Your task to perform on an android device: turn off javascript in the chrome app Image 0: 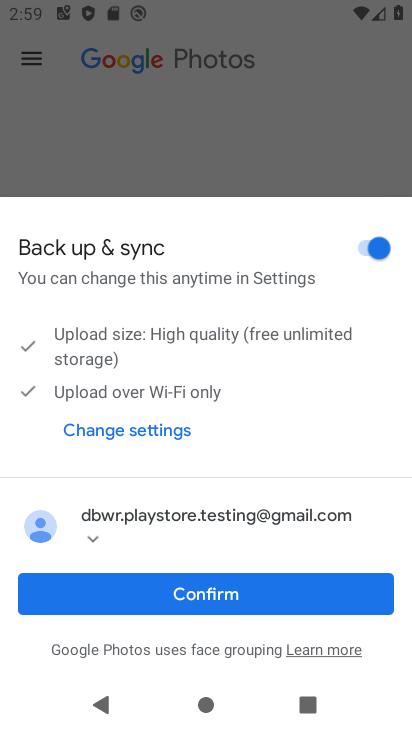
Step 0: press home button
Your task to perform on an android device: turn off javascript in the chrome app Image 1: 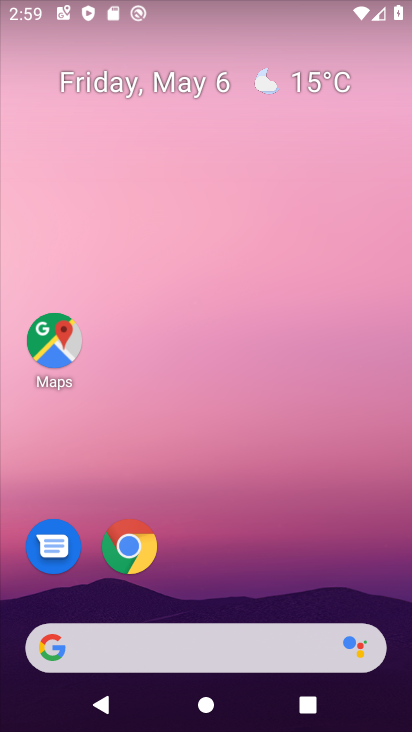
Step 1: click (122, 539)
Your task to perform on an android device: turn off javascript in the chrome app Image 2: 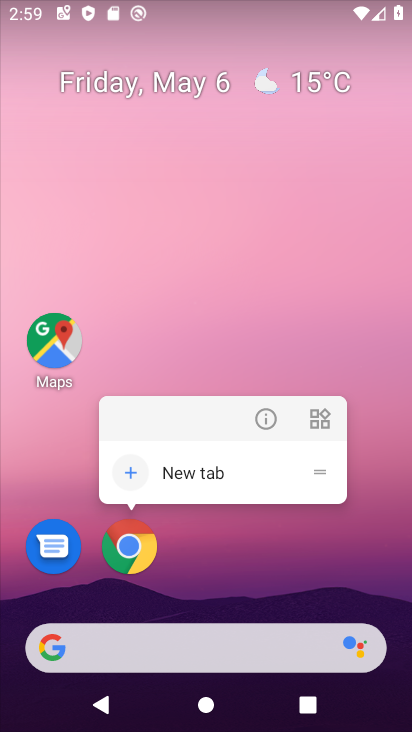
Step 2: click (132, 542)
Your task to perform on an android device: turn off javascript in the chrome app Image 3: 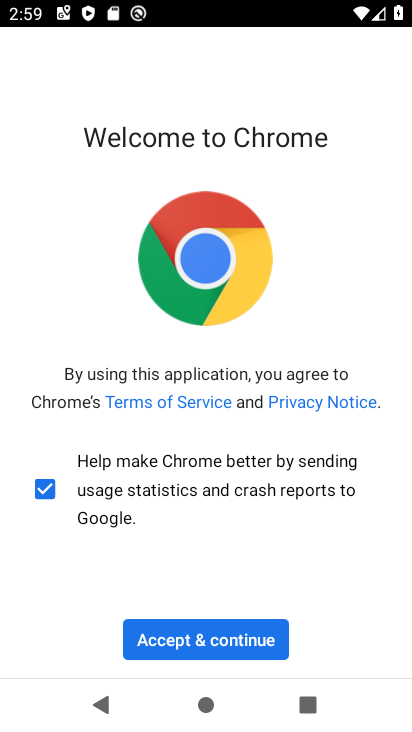
Step 3: click (198, 639)
Your task to perform on an android device: turn off javascript in the chrome app Image 4: 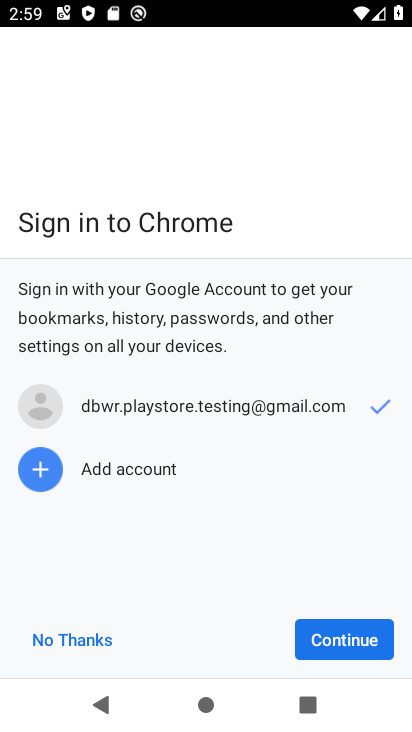
Step 4: click (322, 646)
Your task to perform on an android device: turn off javascript in the chrome app Image 5: 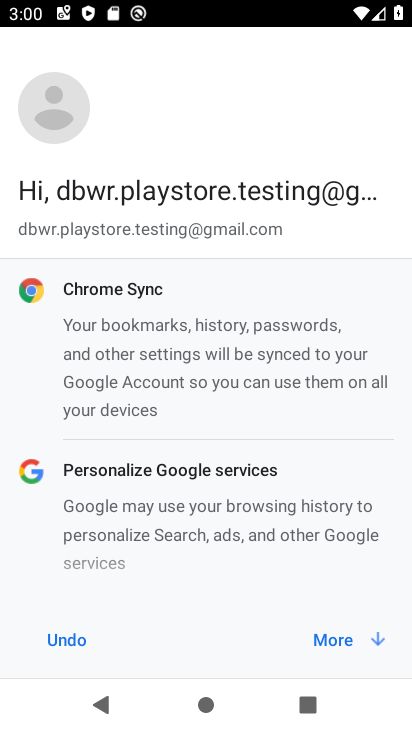
Step 5: click (327, 630)
Your task to perform on an android device: turn off javascript in the chrome app Image 6: 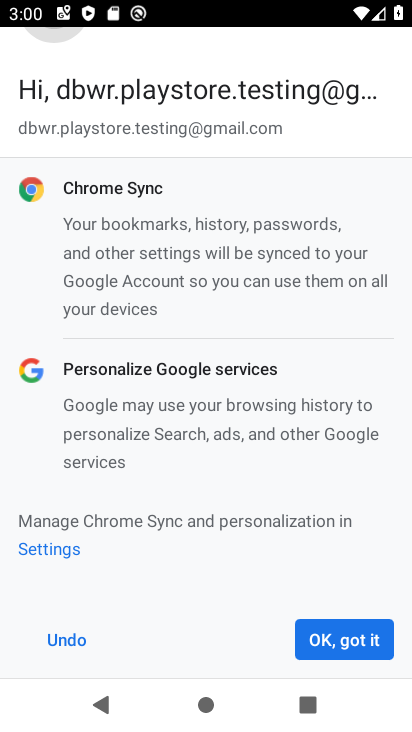
Step 6: click (330, 633)
Your task to perform on an android device: turn off javascript in the chrome app Image 7: 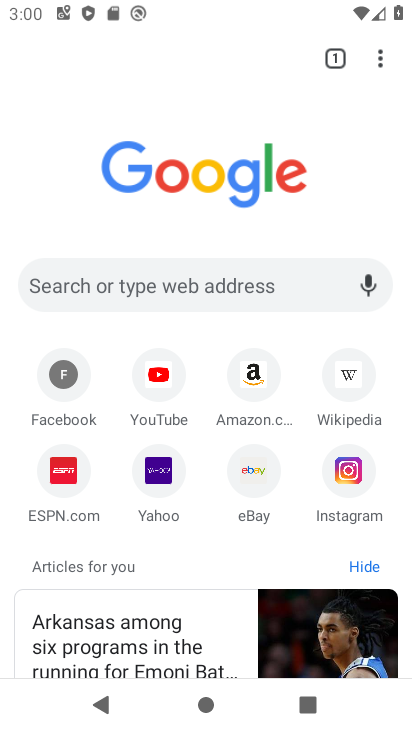
Step 7: click (382, 57)
Your task to perform on an android device: turn off javascript in the chrome app Image 8: 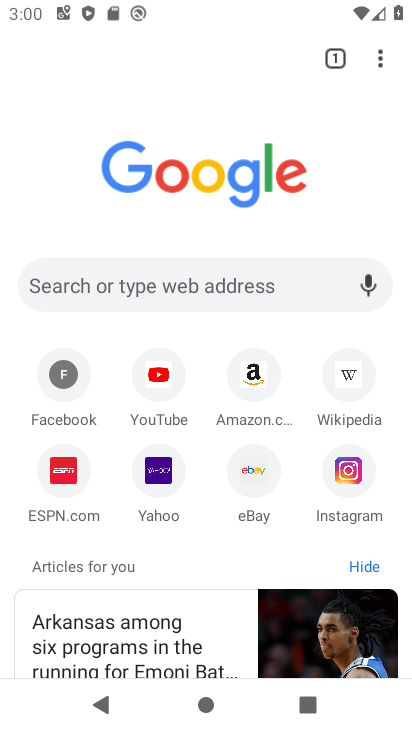
Step 8: click (376, 60)
Your task to perform on an android device: turn off javascript in the chrome app Image 9: 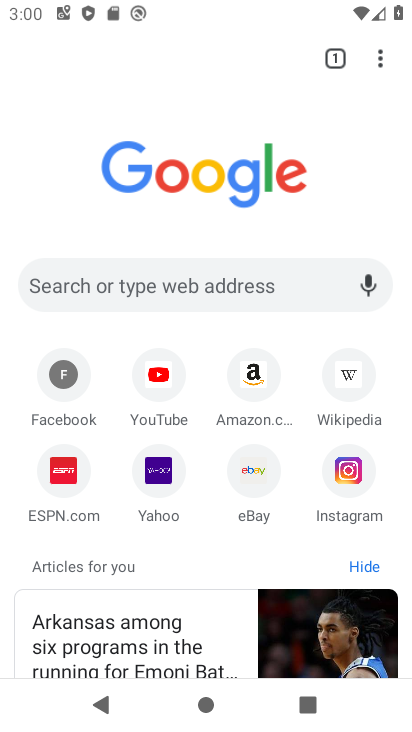
Step 9: click (376, 60)
Your task to perform on an android device: turn off javascript in the chrome app Image 10: 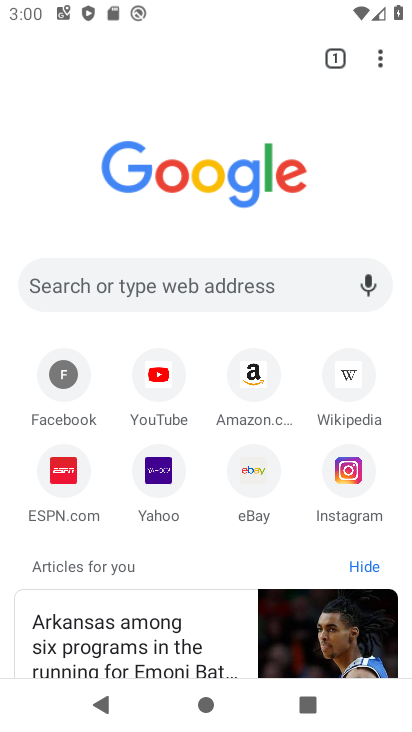
Step 10: click (382, 60)
Your task to perform on an android device: turn off javascript in the chrome app Image 11: 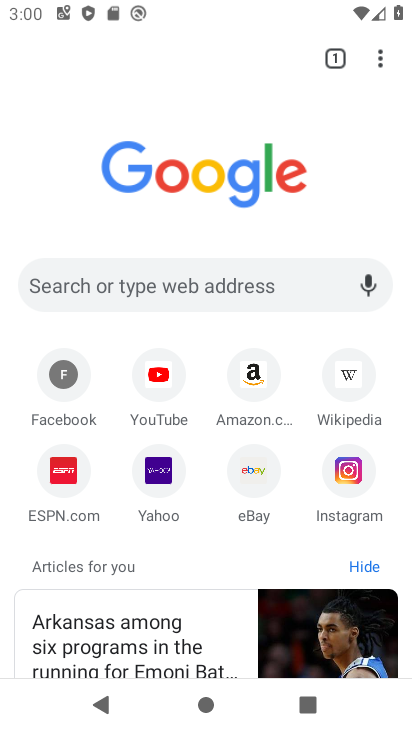
Step 11: click (381, 60)
Your task to perform on an android device: turn off javascript in the chrome app Image 12: 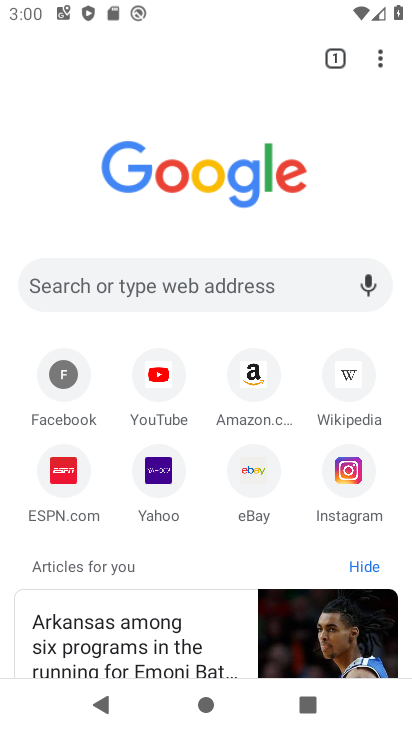
Step 12: click (381, 60)
Your task to perform on an android device: turn off javascript in the chrome app Image 13: 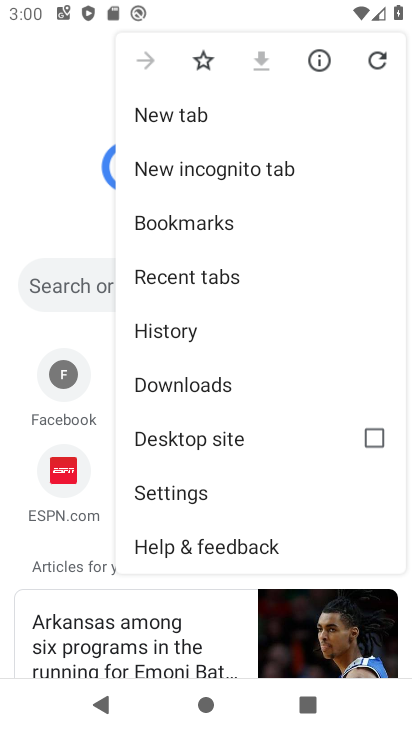
Step 13: drag from (251, 512) to (247, 164)
Your task to perform on an android device: turn off javascript in the chrome app Image 14: 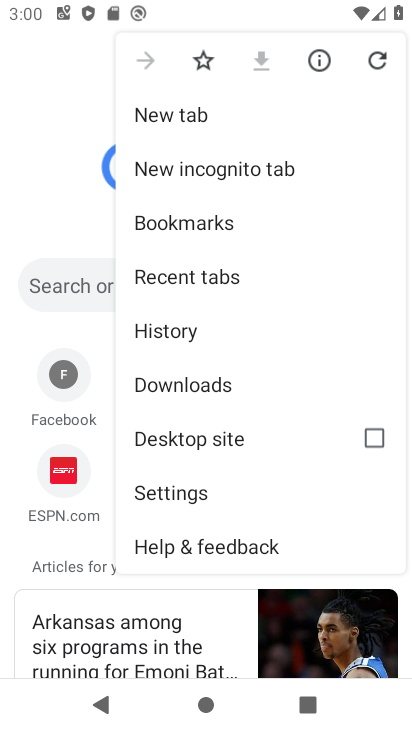
Step 14: click (158, 493)
Your task to perform on an android device: turn off javascript in the chrome app Image 15: 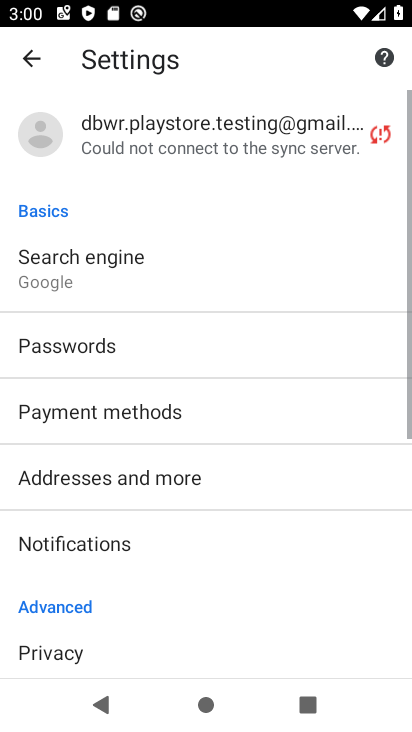
Step 15: drag from (137, 529) to (159, 206)
Your task to perform on an android device: turn off javascript in the chrome app Image 16: 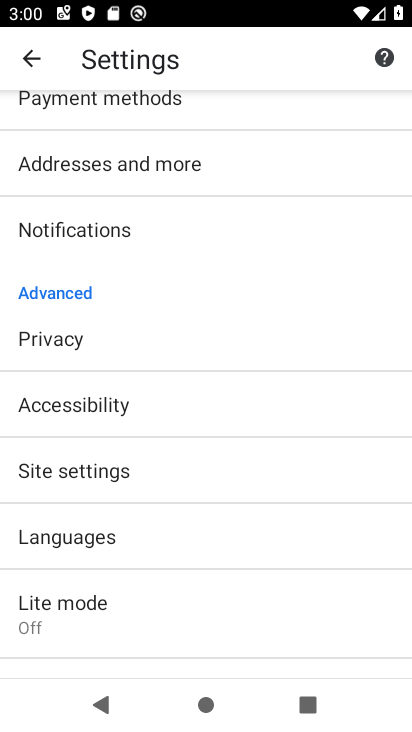
Step 16: drag from (134, 611) to (177, 306)
Your task to perform on an android device: turn off javascript in the chrome app Image 17: 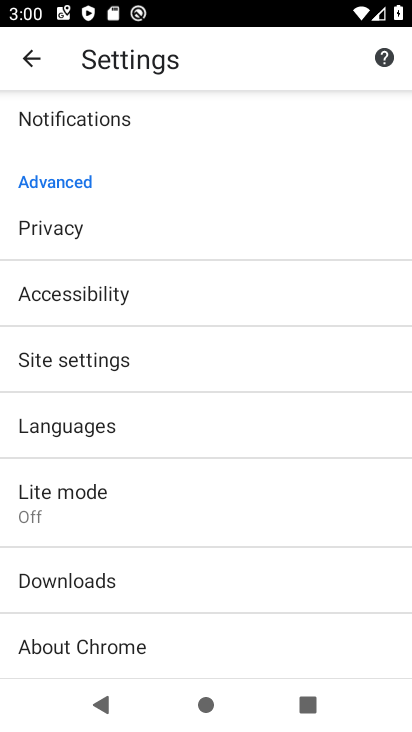
Step 17: click (68, 362)
Your task to perform on an android device: turn off javascript in the chrome app Image 18: 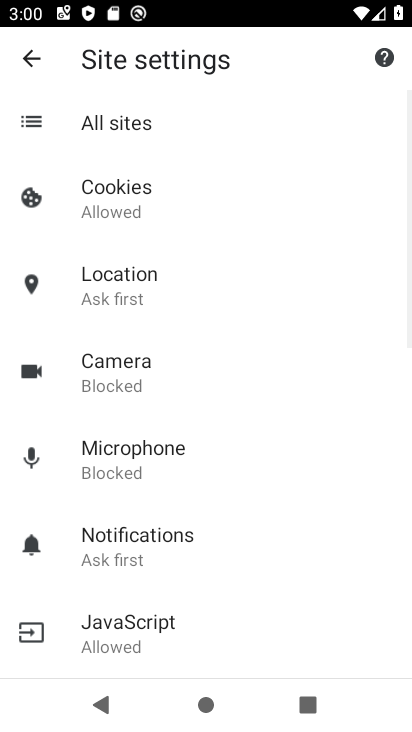
Step 18: drag from (119, 636) to (192, 325)
Your task to perform on an android device: turn off javascript in the chrome app Image 19: 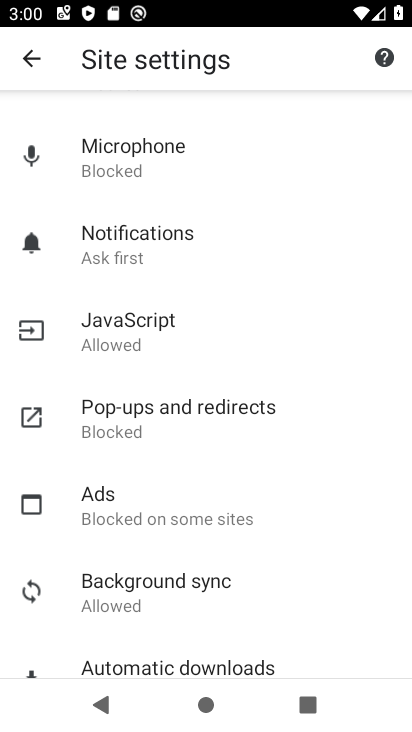
Step 19: click (135, 326)
Your task to perform on an android device: turn off javascript in the chrome app Image 20: 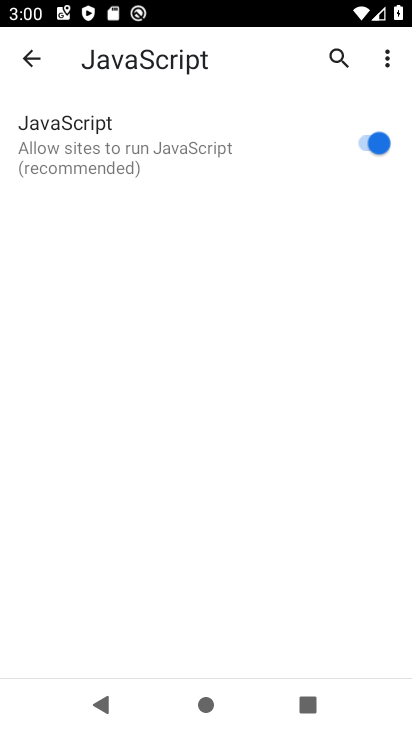
Step 20: click (369, 135)
Your task to perform on an android device: turn off javascript in the chrome app Image 21: 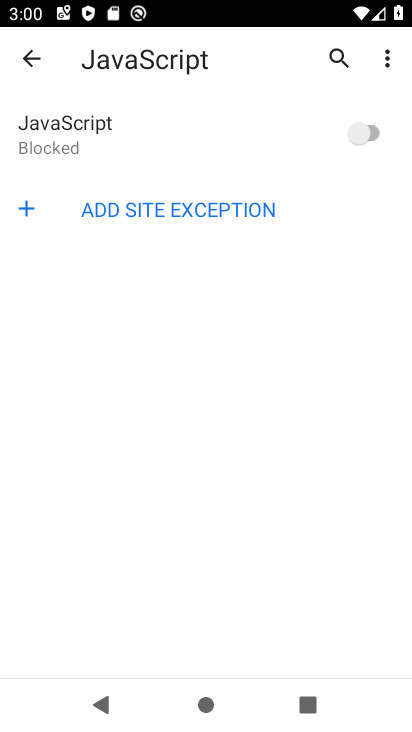
Step 21: task complete